Your task to perform on an android device: delete a single message in the gmail app Image 0: 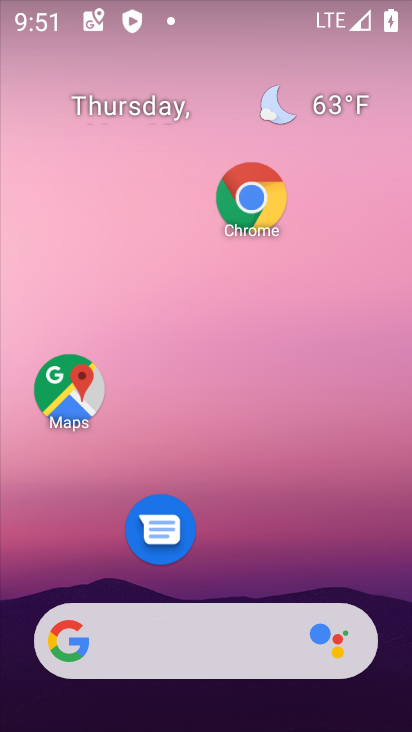
Step 0: drag from (300, 532) to (318, 22)
Your task to perform on an android device: delete a single message in the gmail app Image 1: 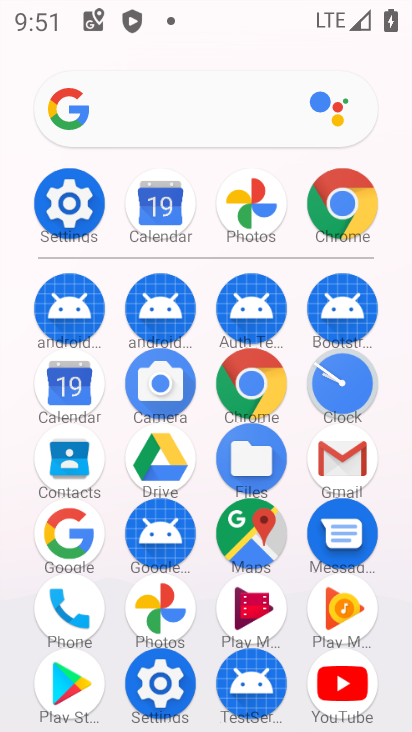
Step 1: drag from (258, 540) to (289, 173)
Your task to perform on an android device: delete a single message in the gmail app Image 2: 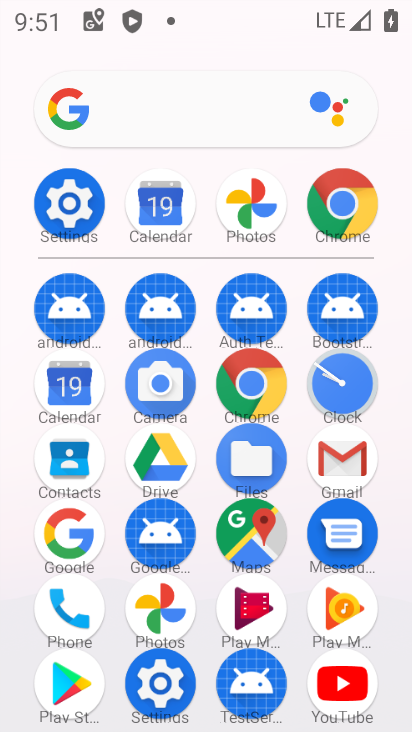
Step 2: click (344, 478)
Your task to perform on an android device: delete a single message in the gmail app Image 3: 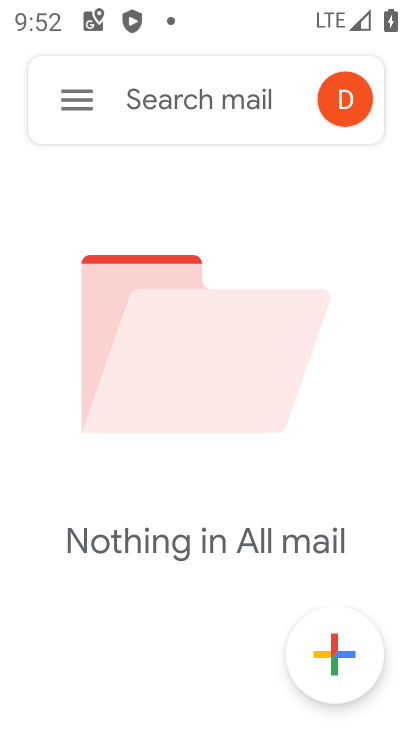
Step 3: task complete